Your task to perform on an android device: make emails show in primary in the gmail app Image 0: 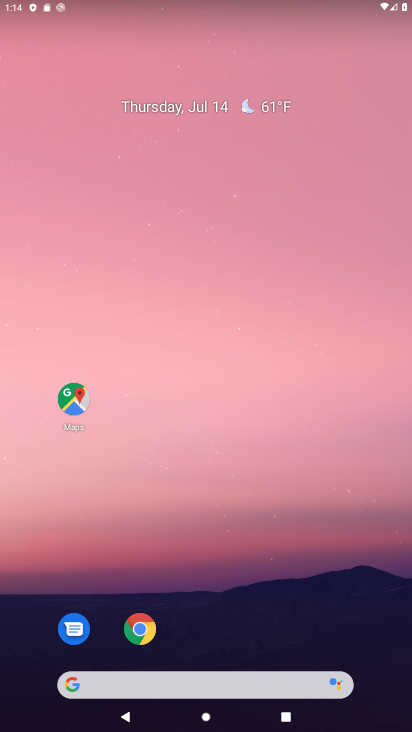
Step 0: drag from (261, 612) to (291, 90)
Your task to perform on an android device: make emails show in primary in the gmail app Image 1: 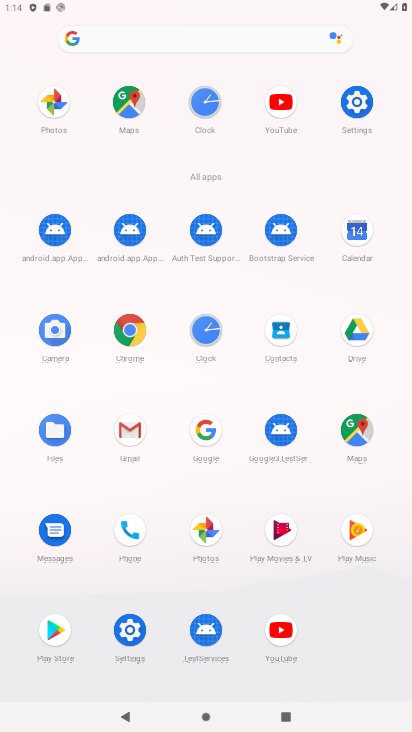
Step 1: click (118, 429)
Your task to perform on an android device: make emails show in primary in the gmail app Image 2: 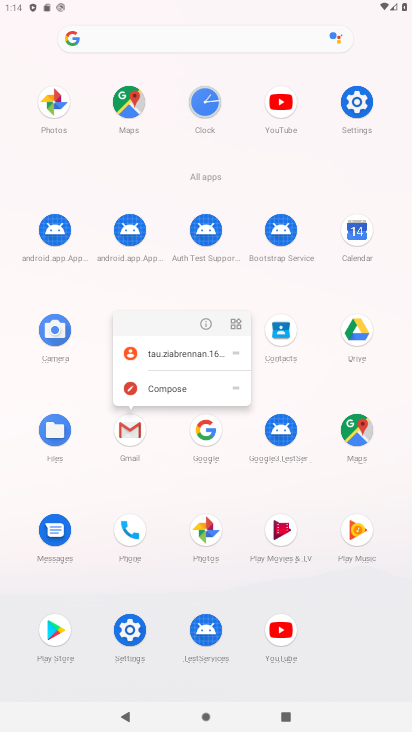
Step 2: click (204, 324)
Your task to perform on an android device: make emails show in primary in the gmail app Image 3: 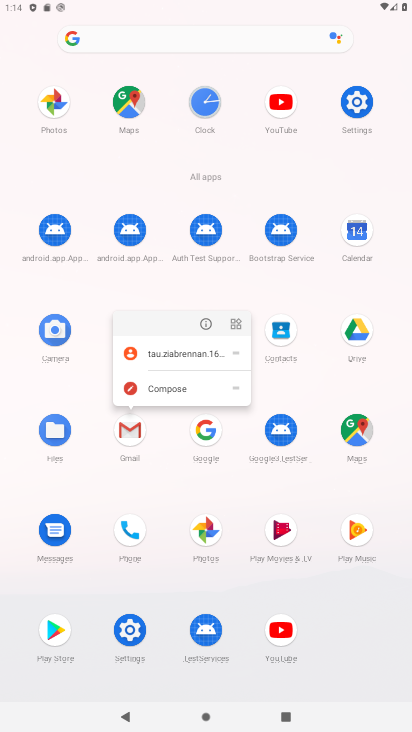
Step 3: click (204, 324)
Your task to perform on an android device: make emails show in primary in the gmail app Image 4: 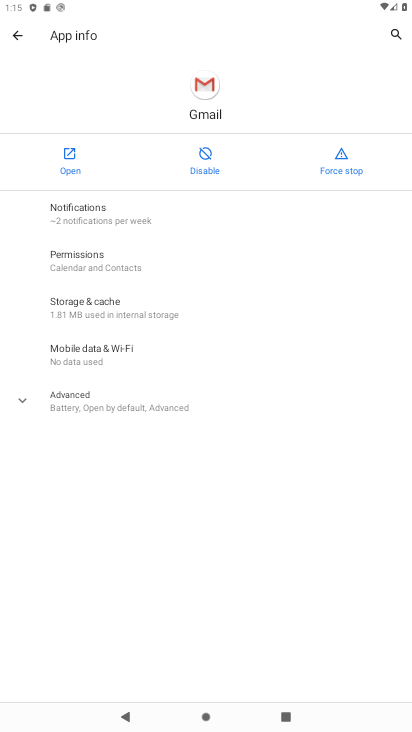
Step 4: click (79, 176)
Your task to perform on an android device: make emails show in primary in the gmail app Image 5: 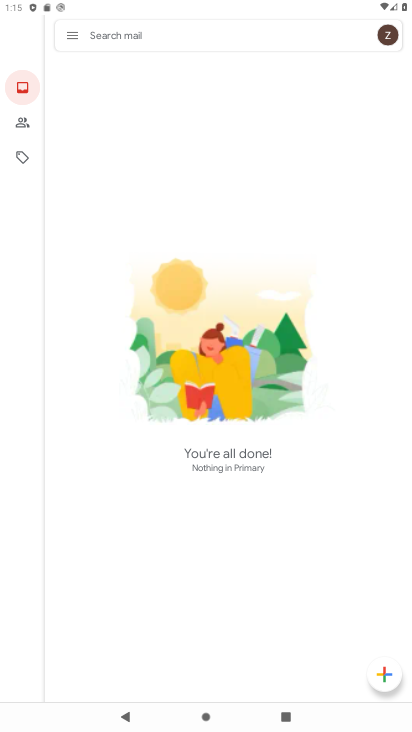
Step 5: click (72, 41)
Your task to perform on an android device: make emails show in primary in the gmail app Image 6: 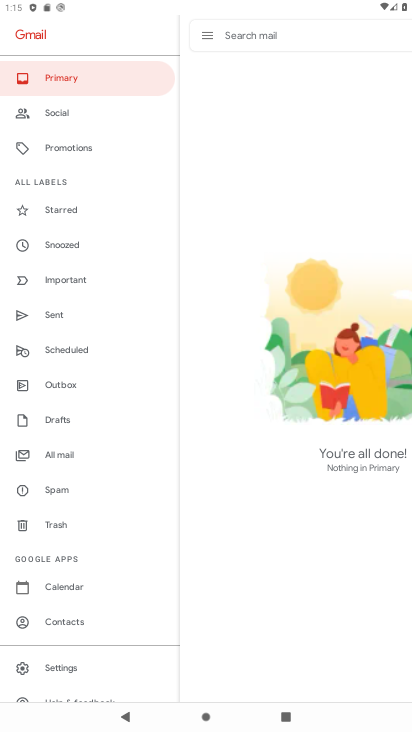
Step 6: drag from (90, 585) to (138, 298)
Your task to perform on an android device: make emails show in primary in the gmail app Image 7: 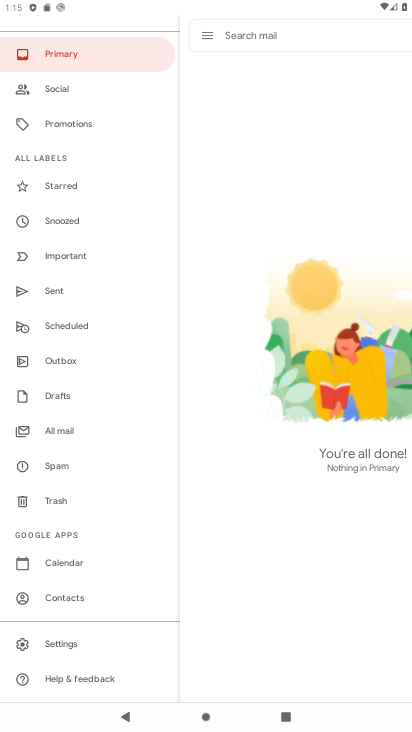
Step 7: click (56, 54)
Your task to perform on an android device: make emails show in primary in the gmail app Image 8: 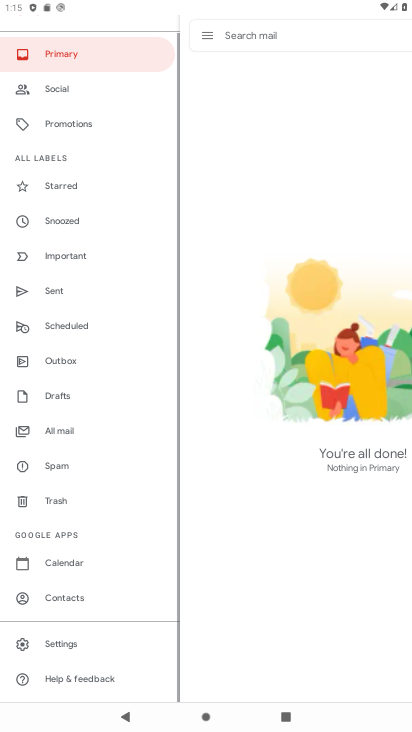
Step 8: task complete